Your task to perform on an android device: What's on my calendar tomorrow? Image 0: 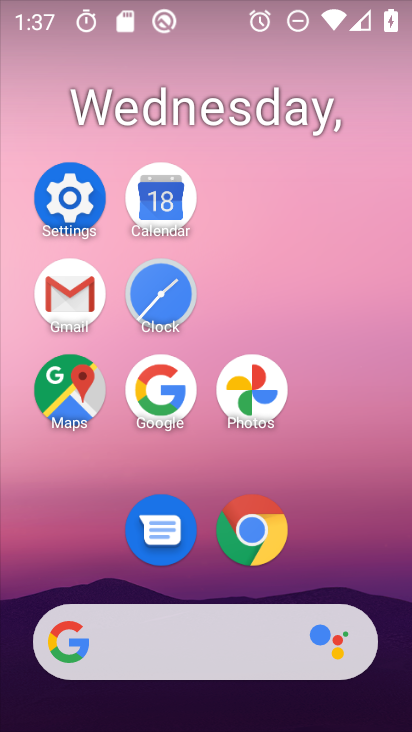
Step 0: click (144, 194)
Your task to perform on an android device: What's on my calendar tomorrow? Image 1: 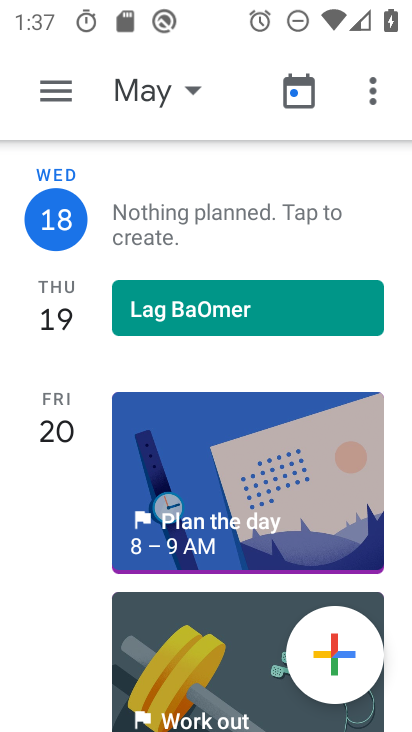
Step 1: click (21, 300)
Your task to perform on an android device: What's on my calendar tomorrow? Image 2: 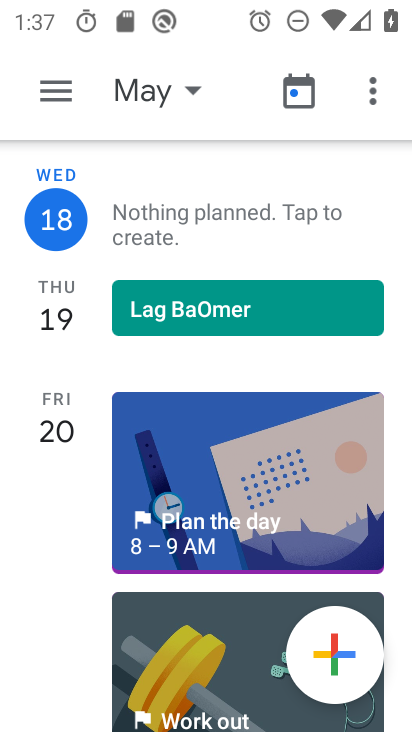
Step 2: click (54, 330)
Your task to perform on an android device: What's on my calendar tomorrow? Image 3: 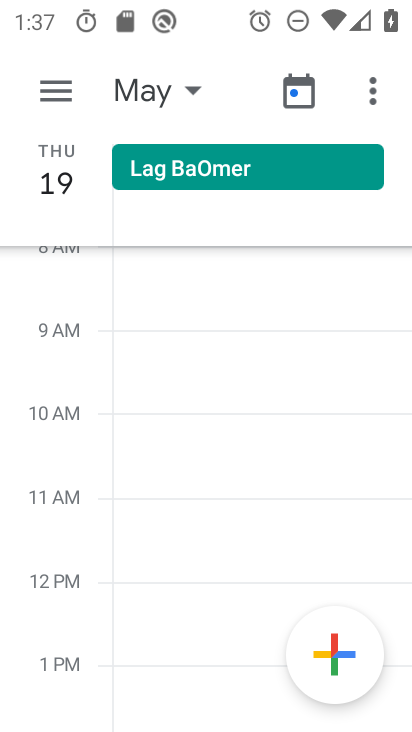
Step 3: task complete